Your task to perform on an android device: Go to Google maps Image 0: 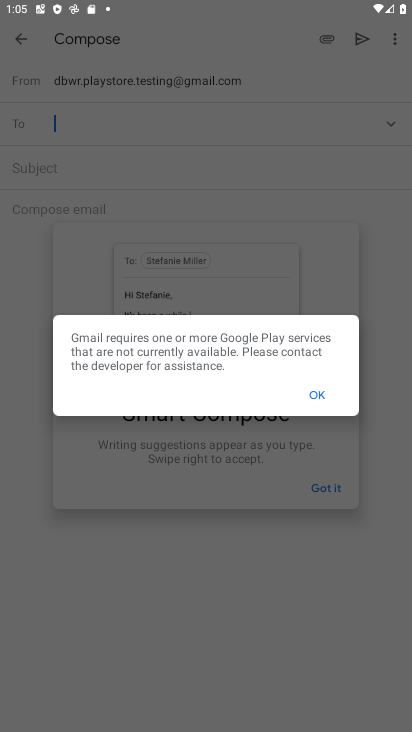
Step 0: press home button
Your task to perform on an android device: Go to Google maps Image 1: 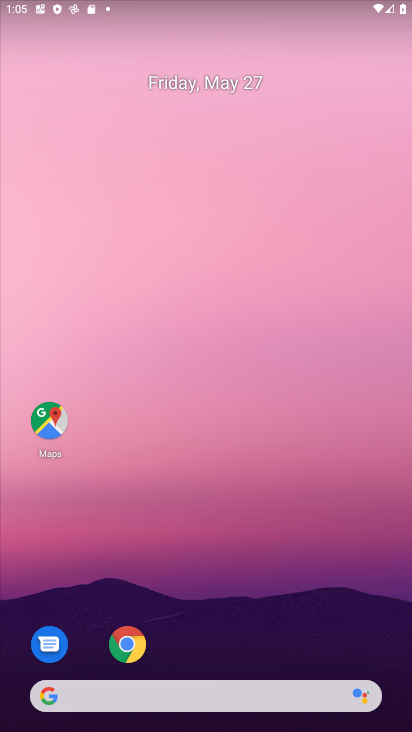
Step 1: drag from (385, 539) to (318, 30)
Your task to perform on an android device: Go to Google maps Image 2: 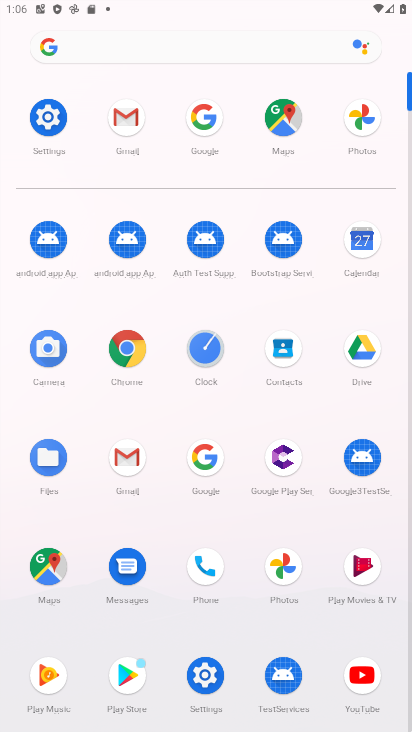
Step 2: click (278, 132)
Your task to perform on an android device: Go to Google maps Image 3: 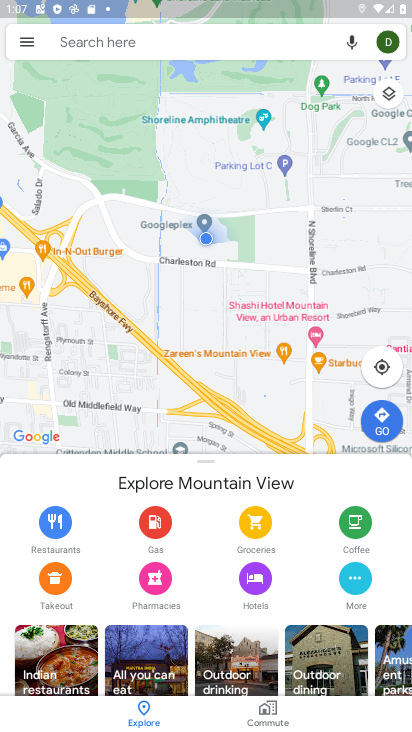
Step 3: task complete